Your task to perform on an android device: set an alarm Image 0: 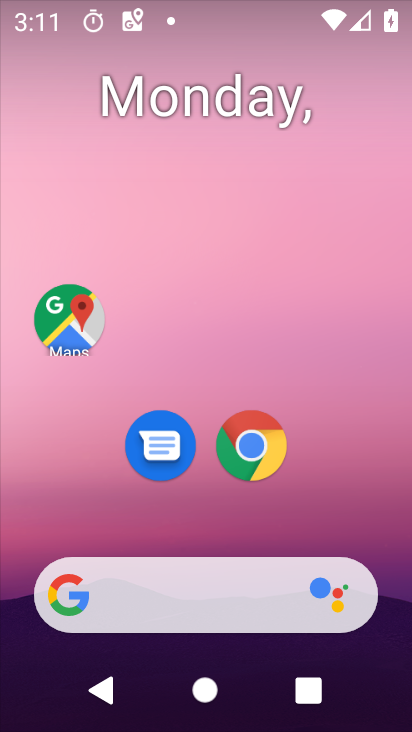
Step 0: drag from (161, 591) to (199, 154)
Your task to perform on an android device: set an alarm Image 1: 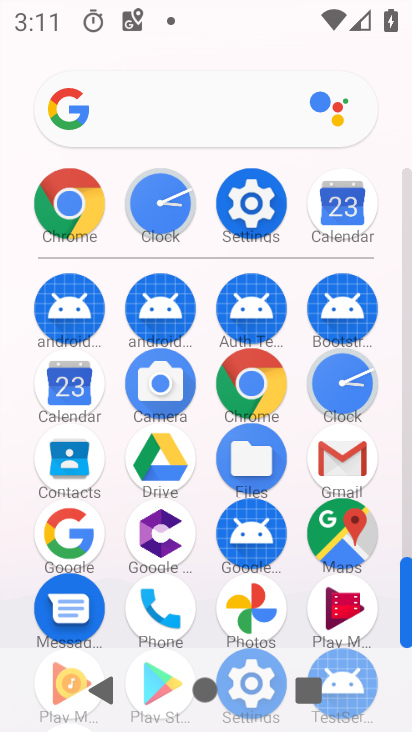
Step 1: click (337, 385)
Your task to perform on an android device: set an alarm Image 2: 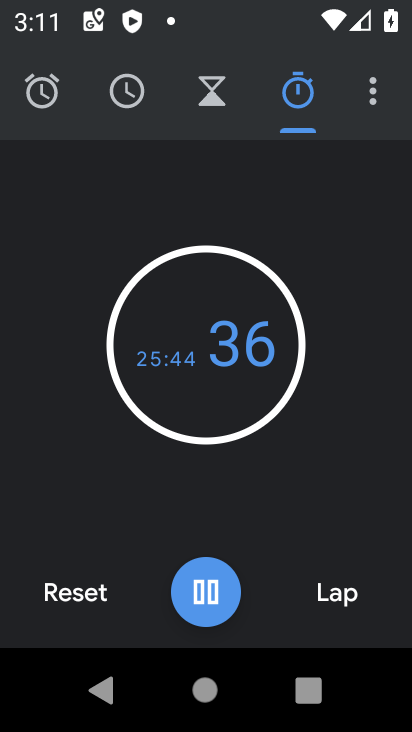
Step 2: click (41, 95)
Your task to perform on an android device: set an alarm Image 3: 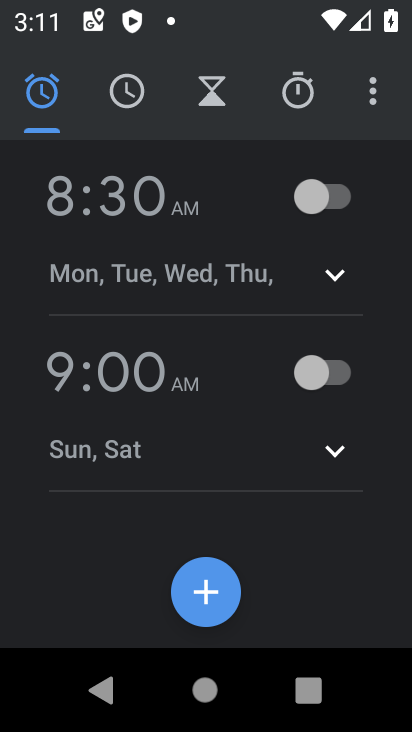
Step 3: click (208, 608)
Your task to perform on an android device: set an alarm Image 4: 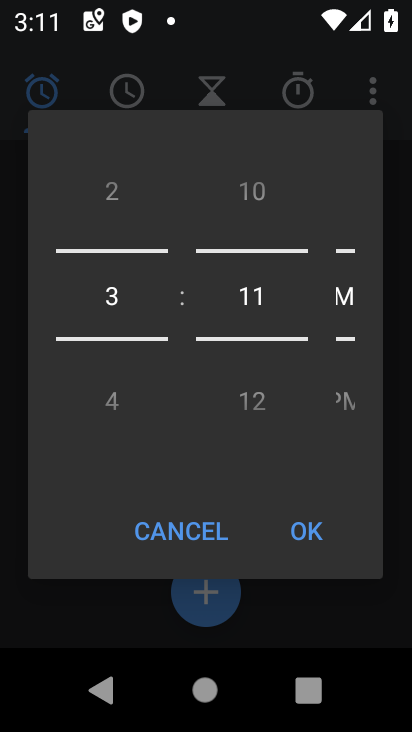
Step 4: drag from (130, 375) to (87, 91)
Your task to perform on an android device: set an alarm Image 5: 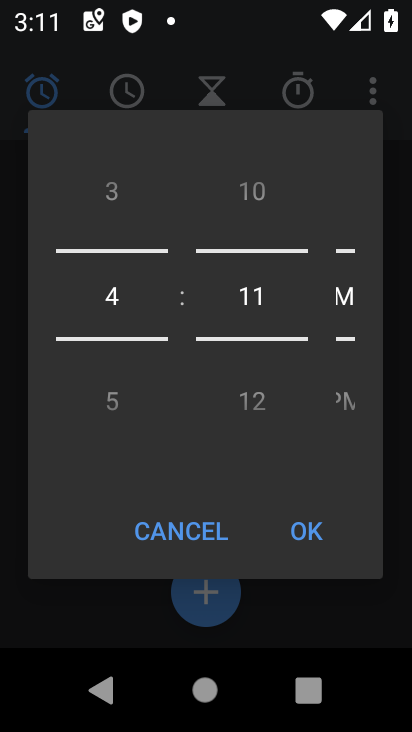
Step 5: click (311, 526)
Your task to perform on an android device: set an alarm Image 6: 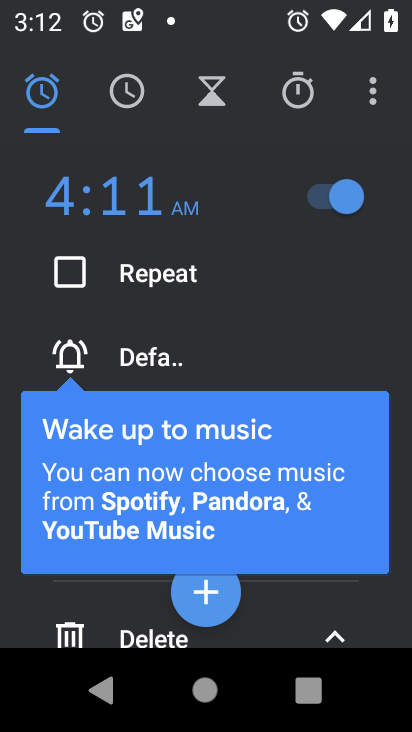
Step 6: task complete